Your task to perform on an android device: What is the news today? Image 0: 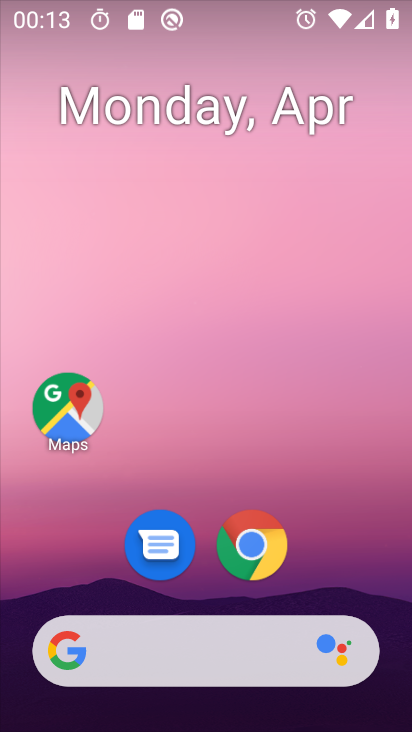
Step 0: drag from (327, 548) to (327, 143)
Your task to perform on an android device: What is the news today? Image 1: 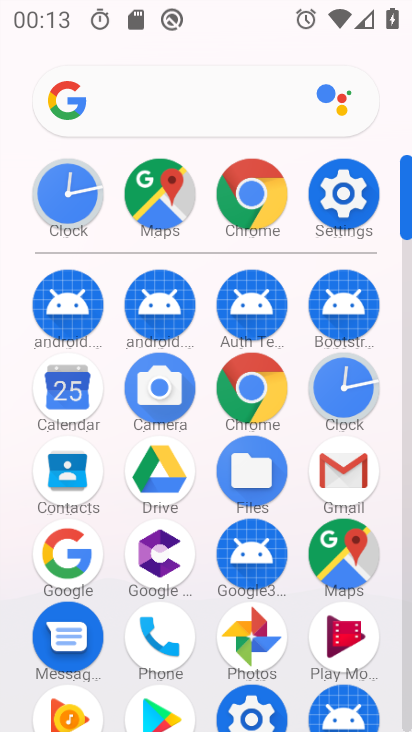
Step 1: click (247, 186)
Your task to perform on an android device: What is the news today? Image 2: 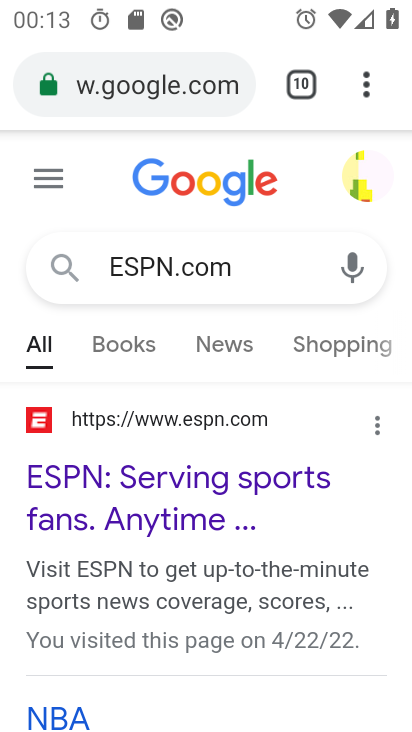
Step 2: click (349, 82)
Your task to perform on an android device: What is the news today? Image 3: 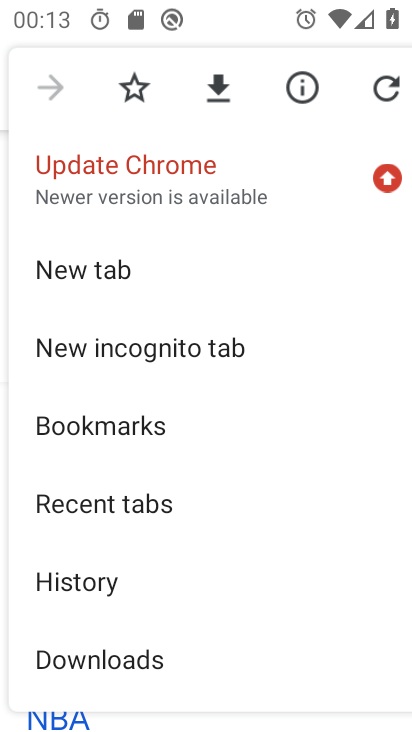
Step 3: click (148, 269)
Your task to perform on an android device: What is the news today? Image 4: 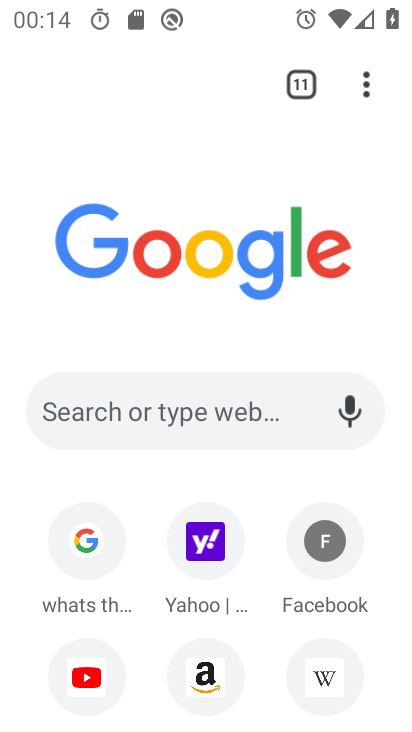
Step 4: click (257, 423)
Your task to perform on an android device: What is the news today? Image 5: 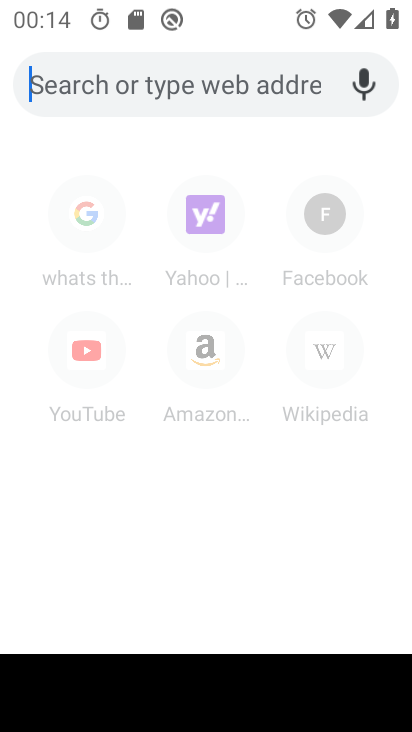
Step 5: type "What is the news today"
Your task to perform on an android device: What is the news today? Image 6: 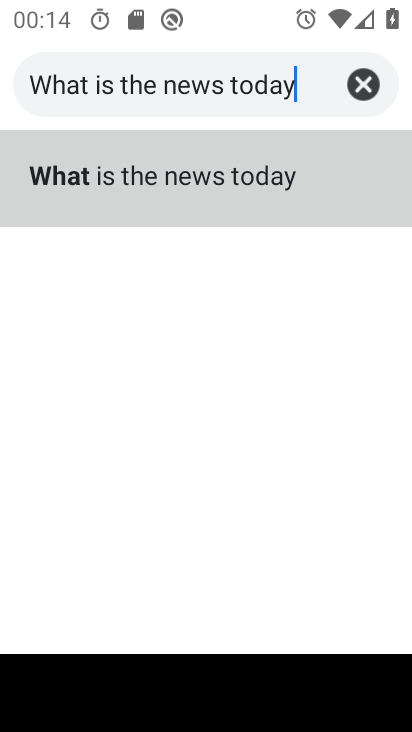
Step 6: click (194, 173)
Your task to perform on an android device: What is the news today? Image 7: 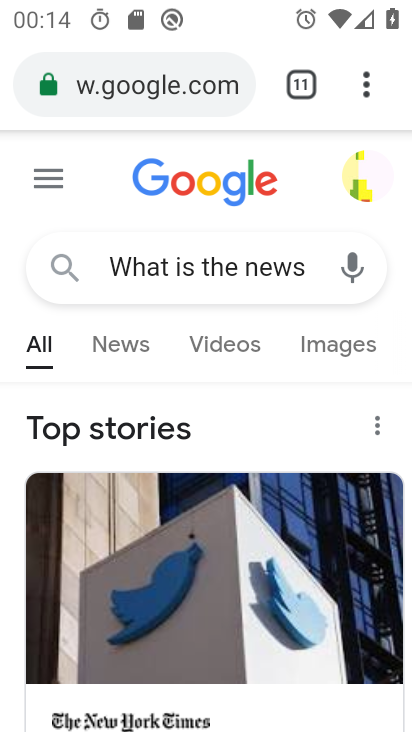
Step 7: task complete